Your task to perform on an android device: Open privacy settings Image 0: 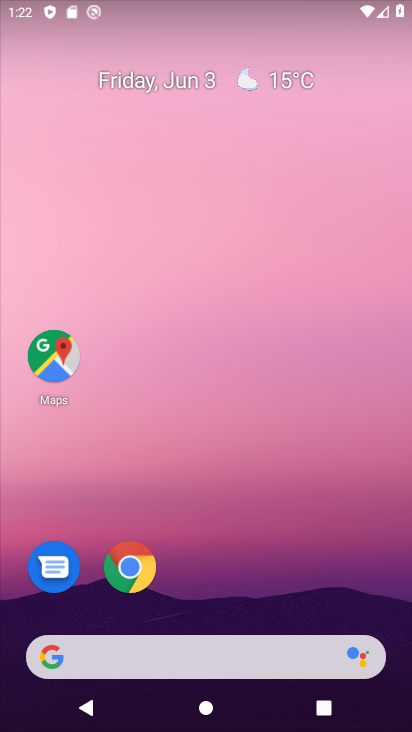
Step 0: drag from (188, 628) to (278, 9)
Your task to perform on an android device: Open privacy settings Image 1: 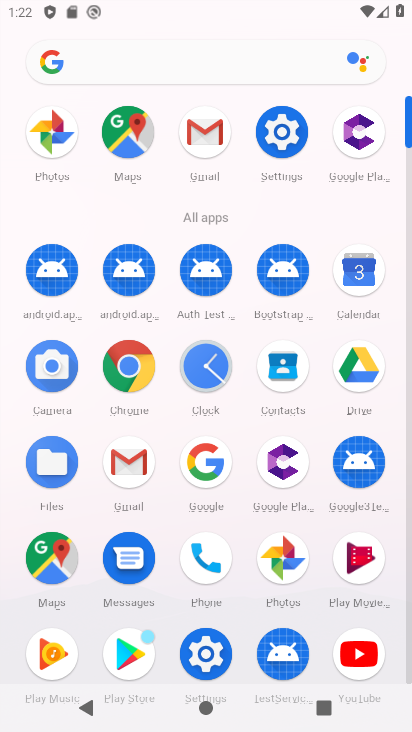
Step 1: click (285, 144)
Your task to perform on an android device: Open privacy settings Image 2: 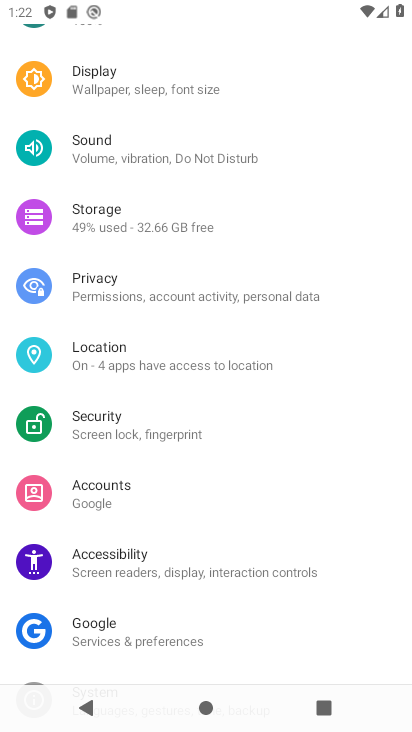
Step 2: click (113, 292)
Your task to perform on an android device: Open privacy settings Image 3: 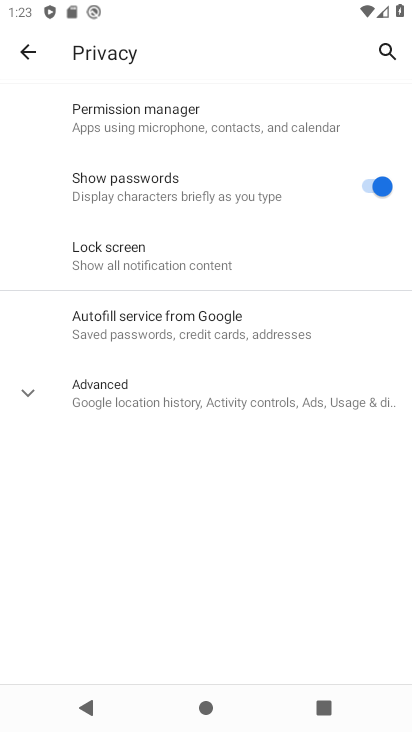
Step 3: click (124, 396)
Your task to perform on an android device: Open privacy settings Image 4: 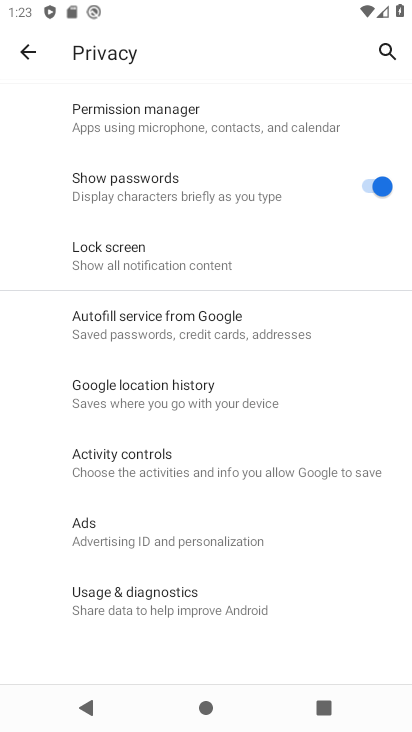
Step 4: task complete